Your task to perform on an android device: Open Google Chrome and open the bookmarks view Image 0: 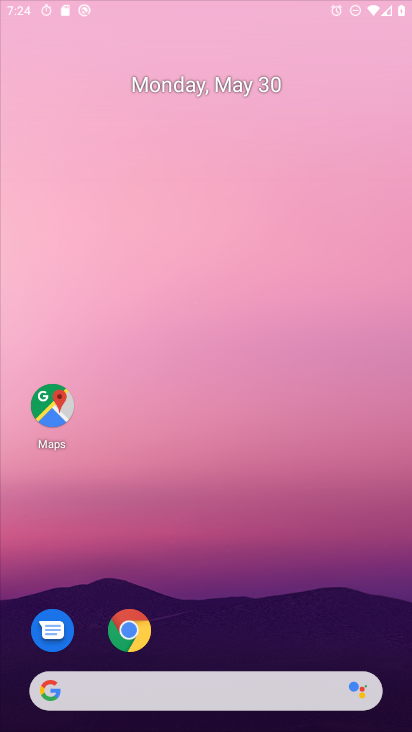
Step 0: drag from (344, 621) to (259, 6)
Your task to perform on an android device: Open Google Chrome and open the bookmarks view Image 1: 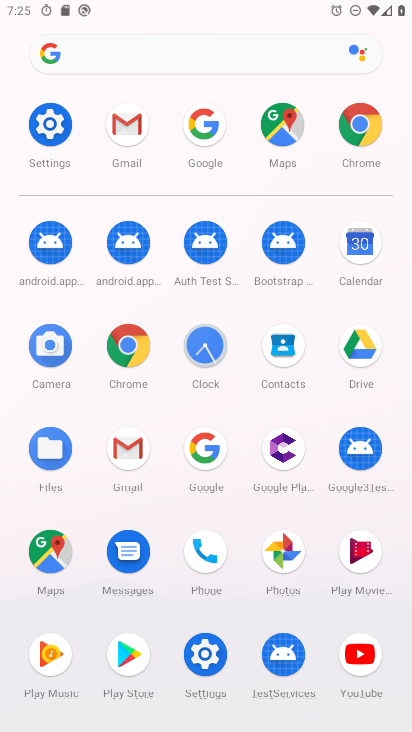
Step 1: click (122, 363)
Your task to perform on an android device: Open Google Chrome and open the bookmarks view Image 2: 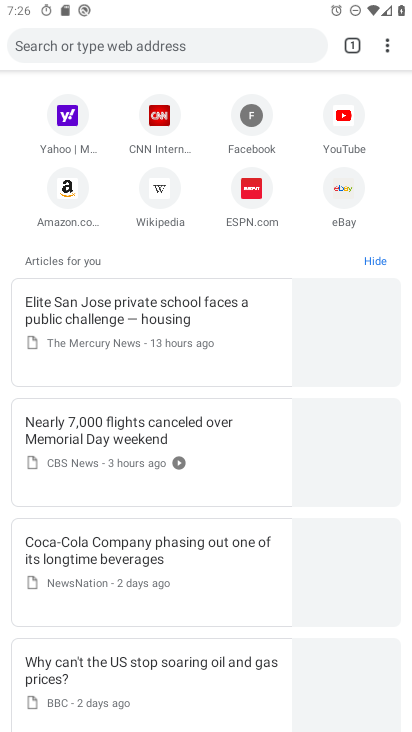
Step 2: click (387, 42)
Your task to perform on an android device: Open Google Chrome and open the bookmarks view Image 3: 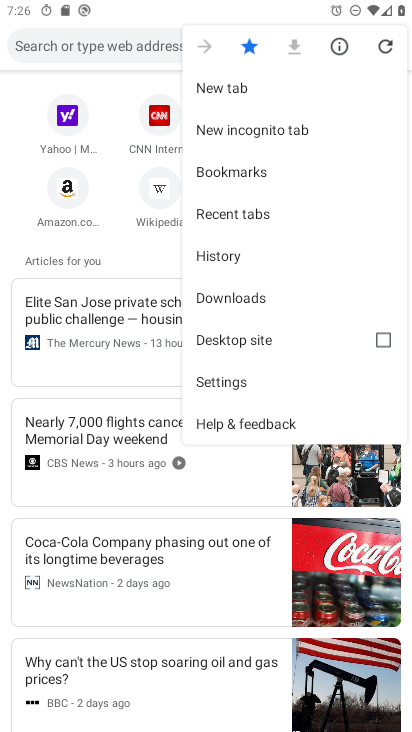
Step 3: click (256, 169)
Your task to perform on an android device: Open Google Chrome and open the bookmarks view Image 4: 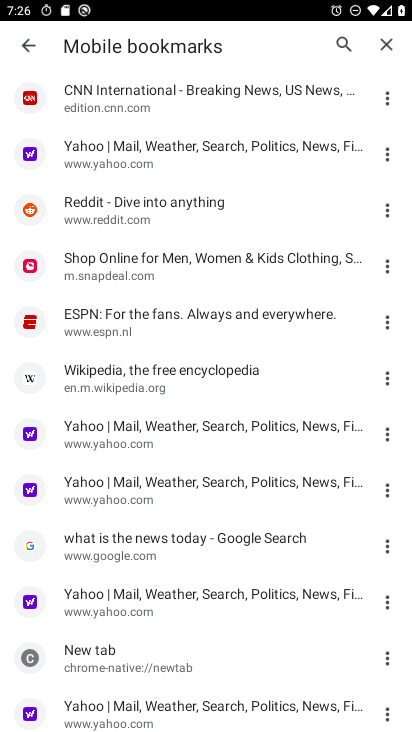
Step 4: task complete